Your task to perform on an android device: turn smart compose on in the gmail app Image 0: 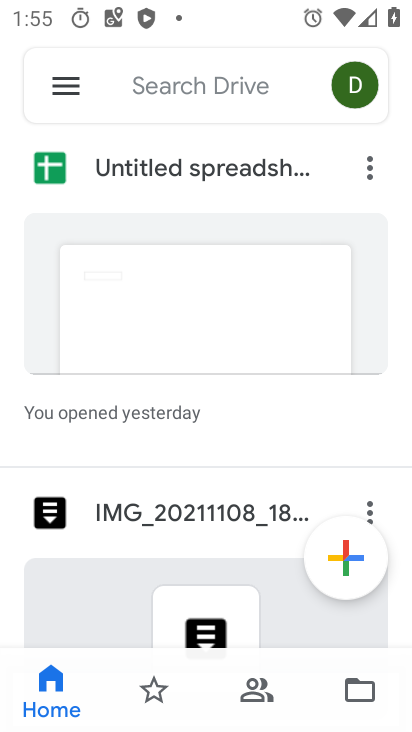
Step 0: press back button
Your task to perform on an android device: turn smart compose on in the gmail app Image 1: 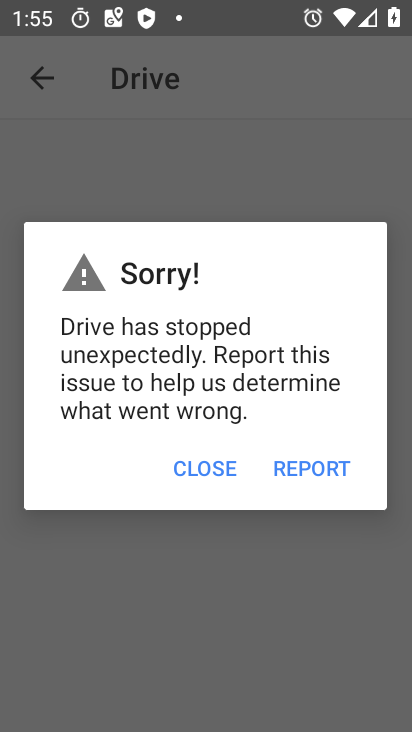
Step 1: press home button
Your task to perform on an android device: turn smart compose on in the gmail app Image 2: 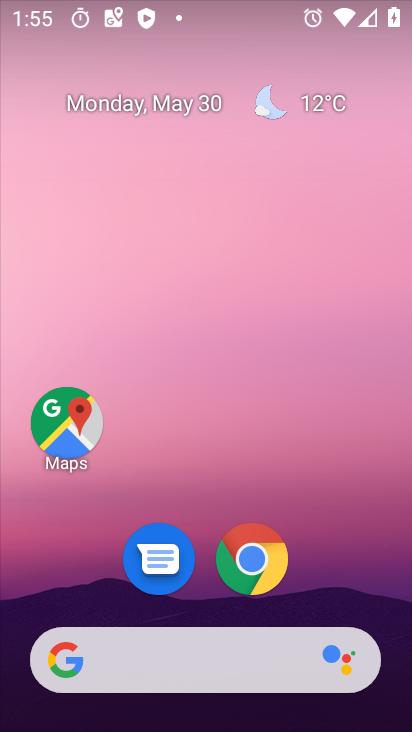
Step 2: drag from (208, 493) to (272, 34)
Your task to perform on an android device: turn smart compose on in the gmail app Image 3: 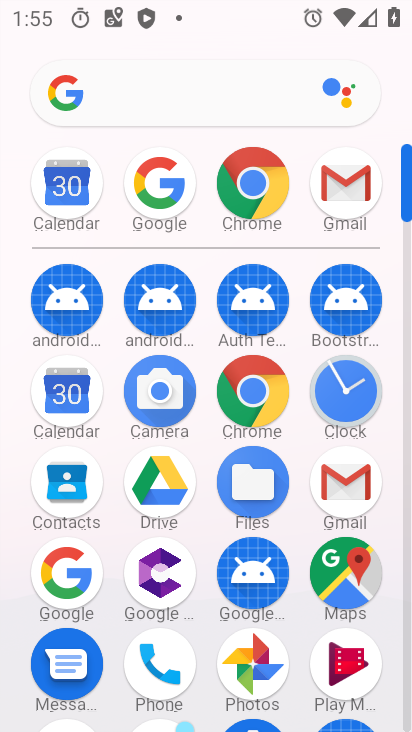
Step 3: click (354, 181)
Your task to perform on an android device: turn smart compose on in the gmail app Image 4: 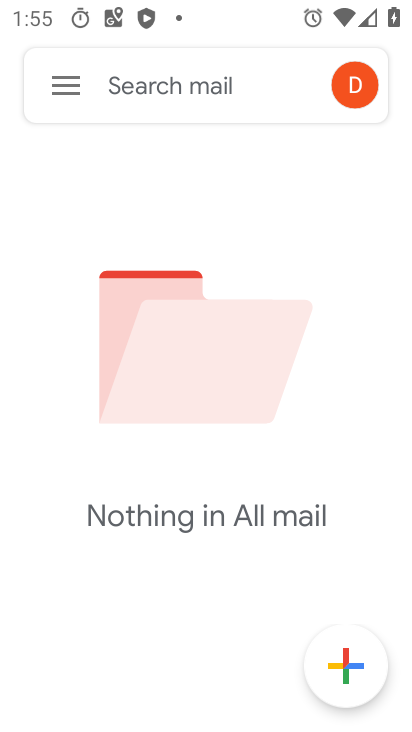
Step 4: click (51, 70)
Your task to perform on an android device: turn smart compose on in the gmail app Image 5: 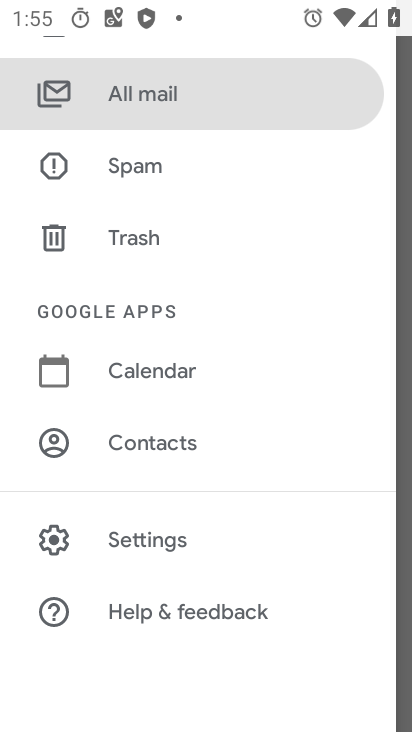
Step 5: click (145, 542)
Your task to perform on an android device: turn smart compose on in the gmail app Image 6: 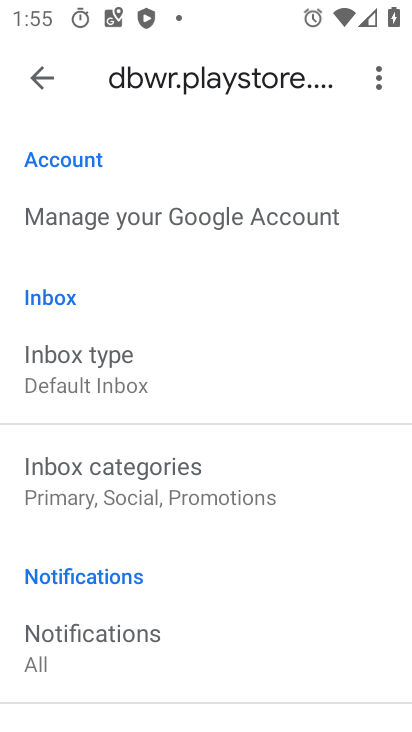
Step 6: task complete